Your task to perform on an android device: toggle priority inbox in the gmail app Image 0: 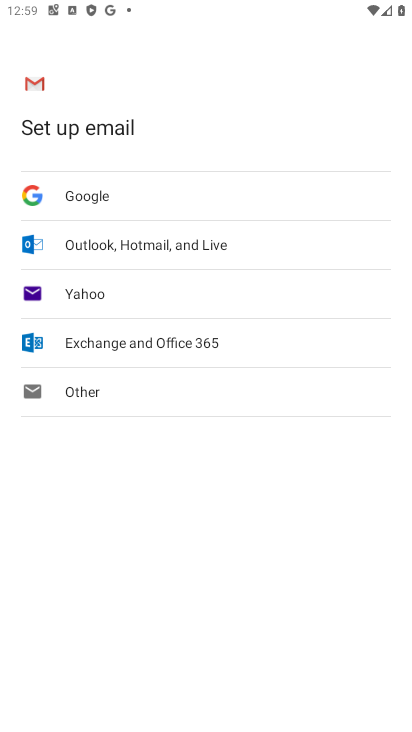
Step 0: press home button
Your task to perform on an android device: toggle priority inbox in the gmail app Image 1: 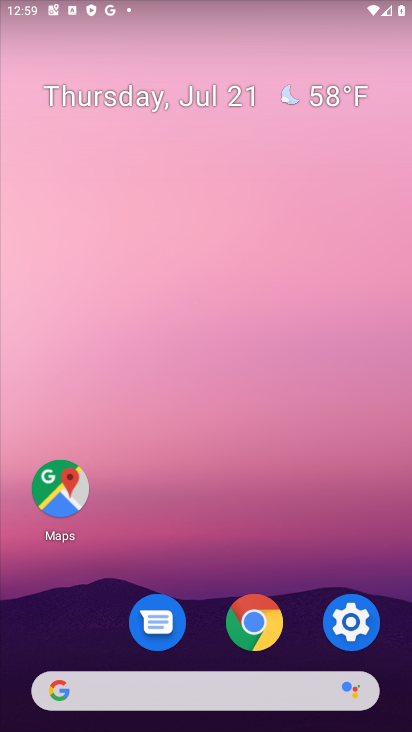
Step 1: drag from (227, 691) to (310, 124)
Your task to perform on an android device: toggle priority inbox in the gmail app Image 2: 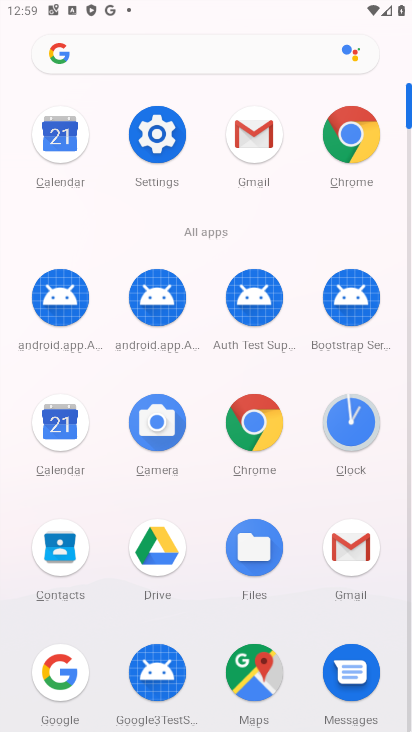
Step 2: click (259, 138)
Your task to perform on an android device: toggle priority inbox in the gmail app Image 3: 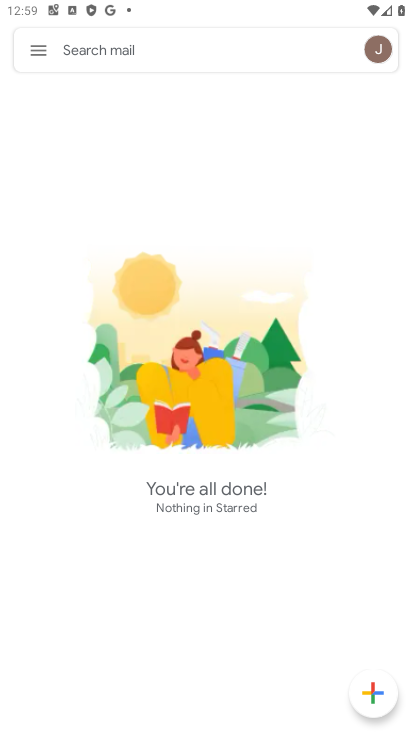
Step 3: click (37, 49)
Your task to perform on an android device: toggle priority inbox in the gmail app Image 4: 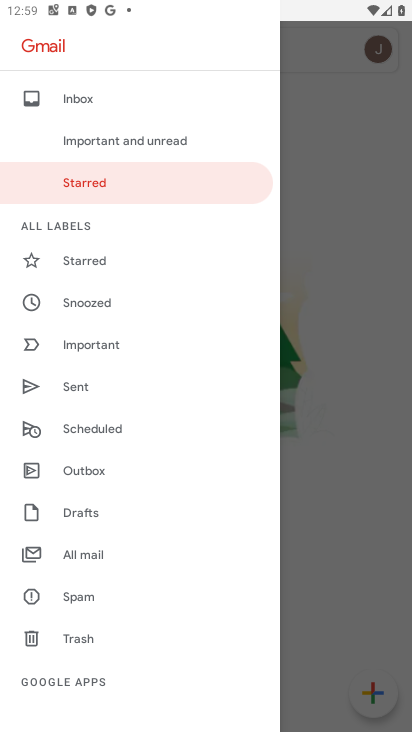
Step 4: drag from (82, 611) to (70, 510)
Your task to perform on an android device: toggle priority inbox in the gmail app Image 5: 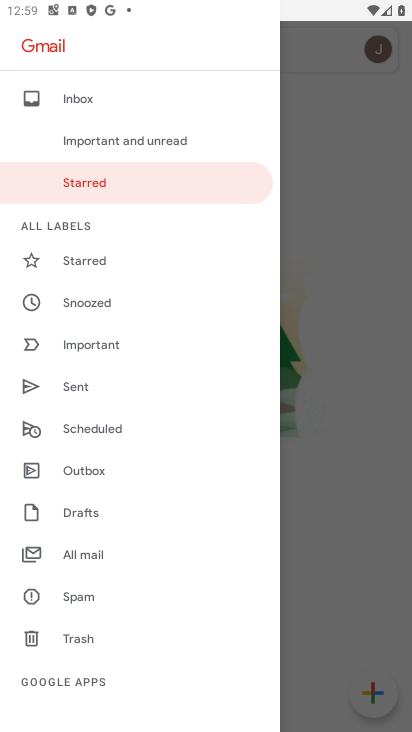
Step 5: drag from (71, 576) to (156, 468)
Your task to perform on an android device: toggle priority inbox in the gmail app Image 6: 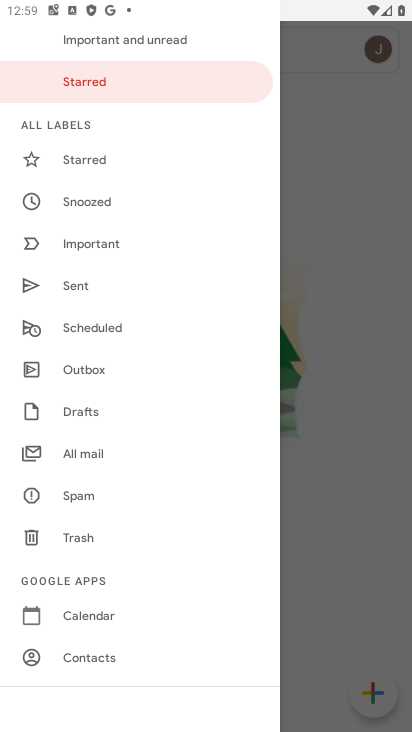
Step 6: drag from (89, 640) to (116, 549)
Your task to perform on an android device: toggle priority inbox in the gmail app Image 7: 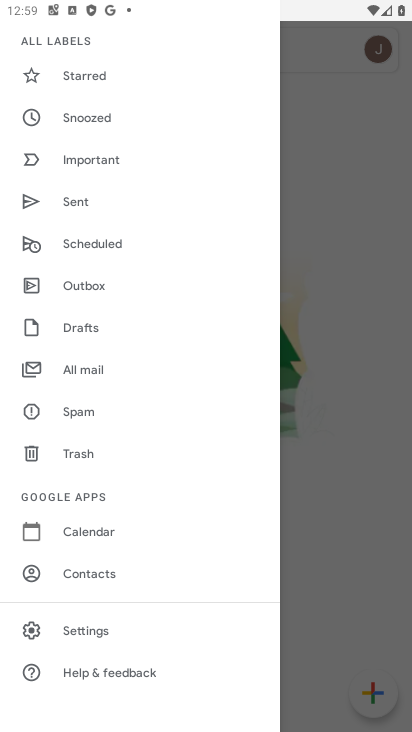
Step 7: click (98, 631)
Your task to perform on an android device: toggle priority inbox in the gmail app Image 8: 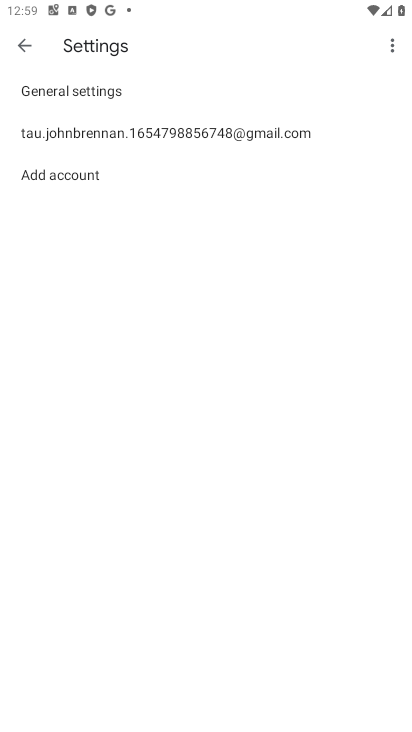
Step 8: click (145, 138)
Your task to perform on an android device: toggle priority inbox in the gmail app Image 9: 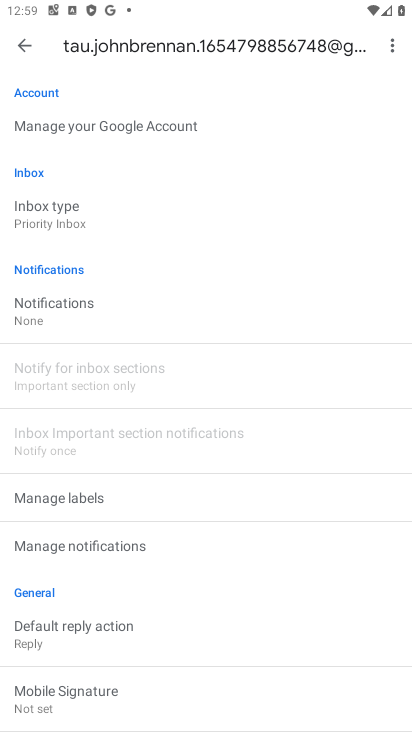
Step 9: click (68, 212)
Your task to perform on an android device: toggle priority inbox in the gmail app Image 10: 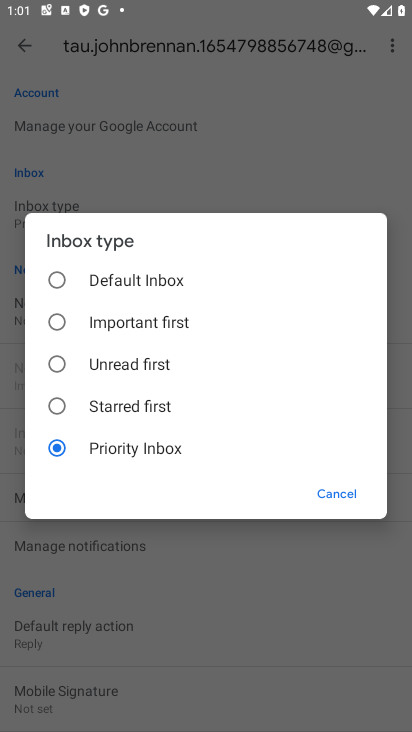
Step 10: task complete